Your task to perform on an android device: turn off location history Image 0: 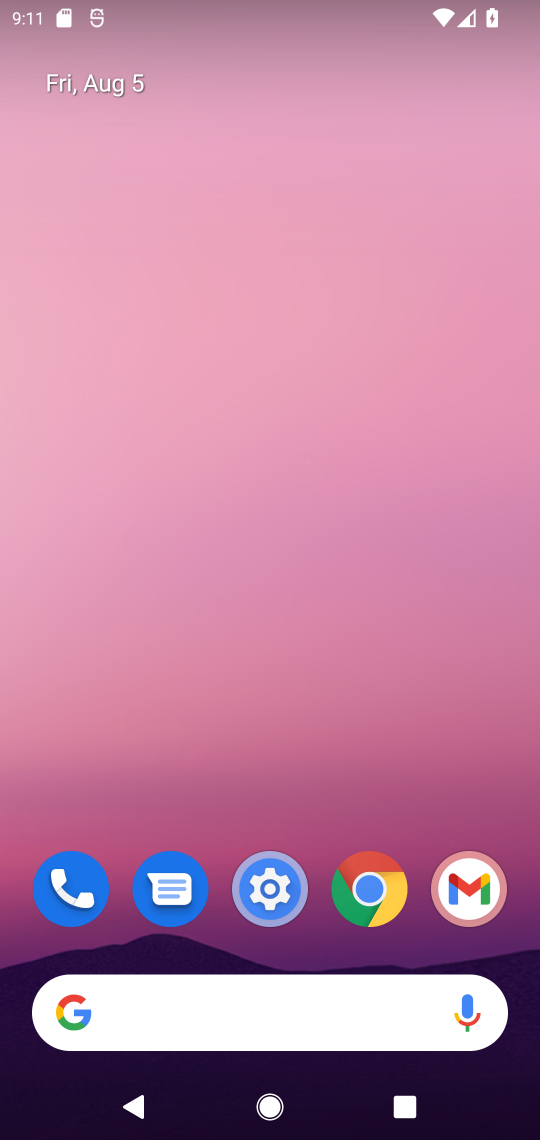
Step 0: drag from (360, 915) to (372, 144)
Your task to perform on an android device: turn off location history Image 1: 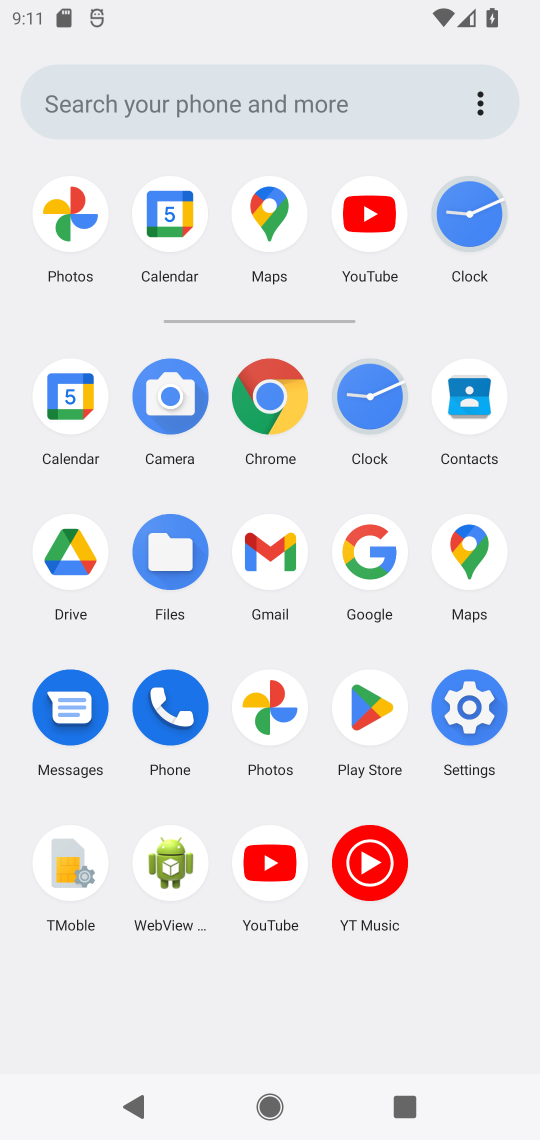
Step 1: click (476, 714)
Your task to perform on an android device: turn off location history Image 2: 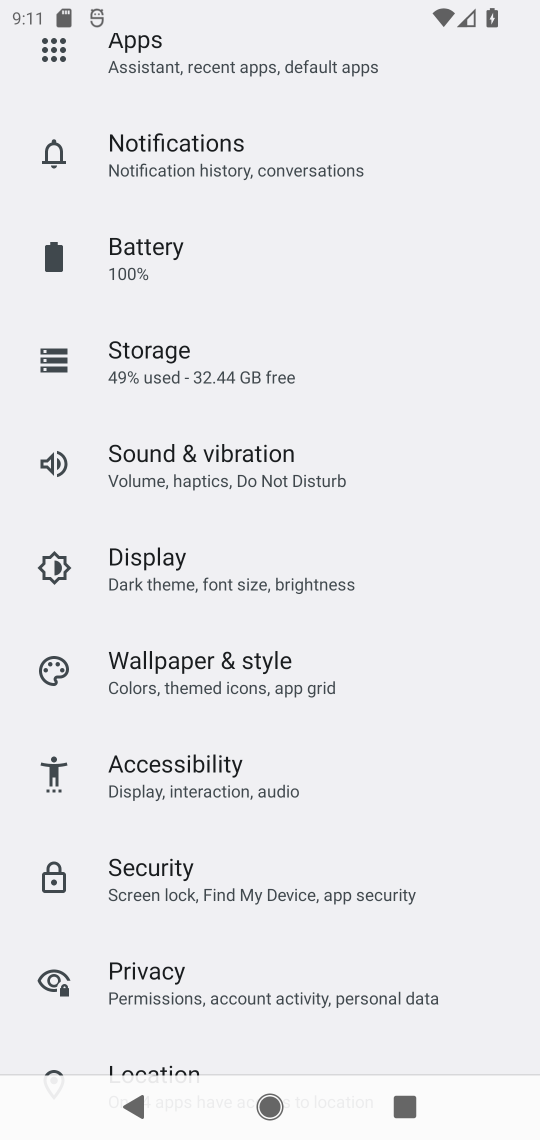
Step 2: drag from (215, 205) to (228, 890)
Your task to perform on an android device: turn off location history Image 3: 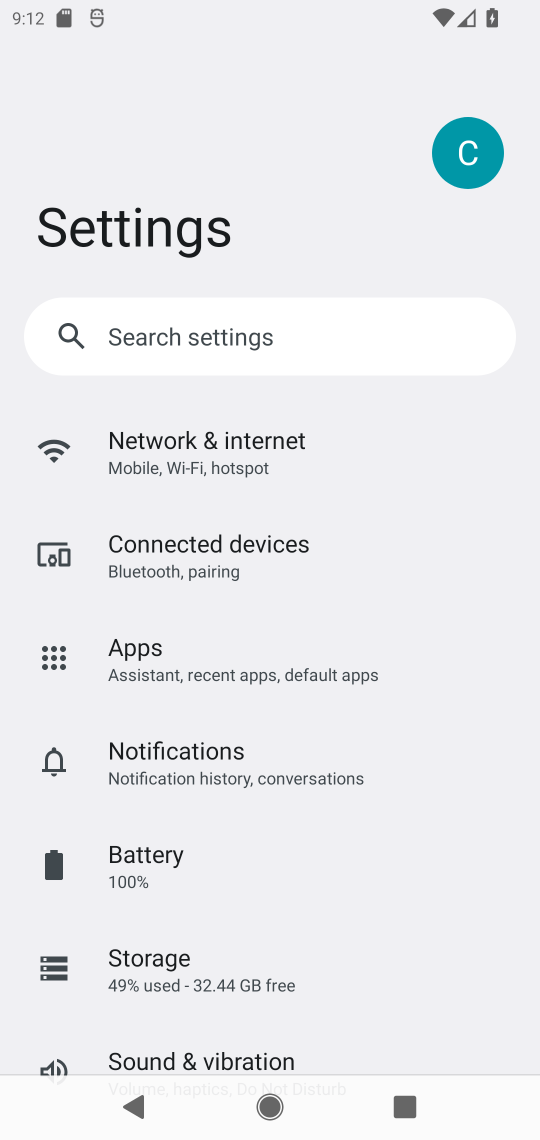
Step 3: drag from (239, 979) to (266, 620)
Your task to perform on an android device: turn off location history Image 4: 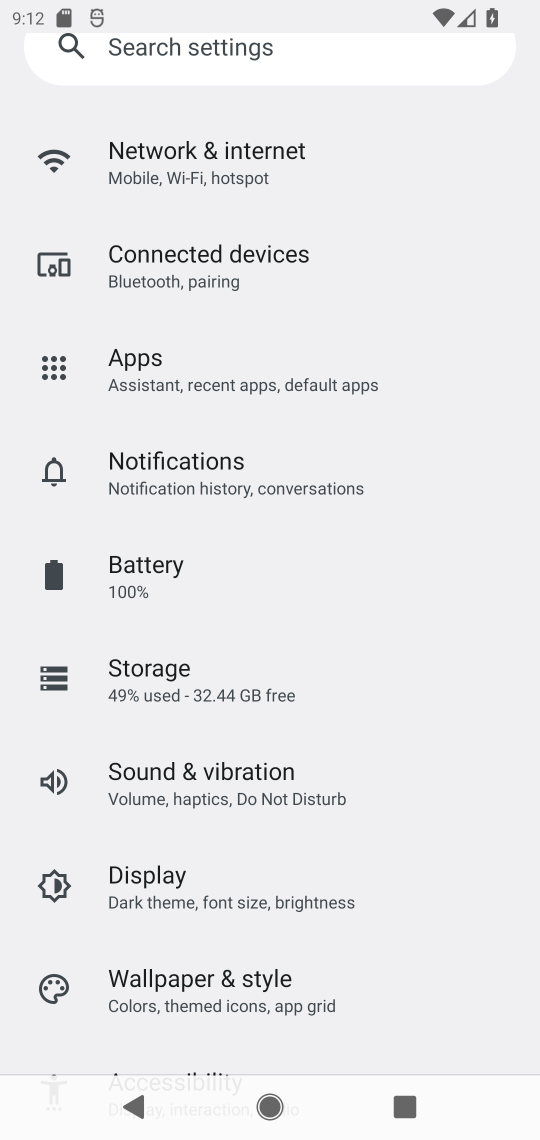
Step 4: drag from (191, 921) to (287, 456)
Your task to perform on an android device: turn off location history Image 5: 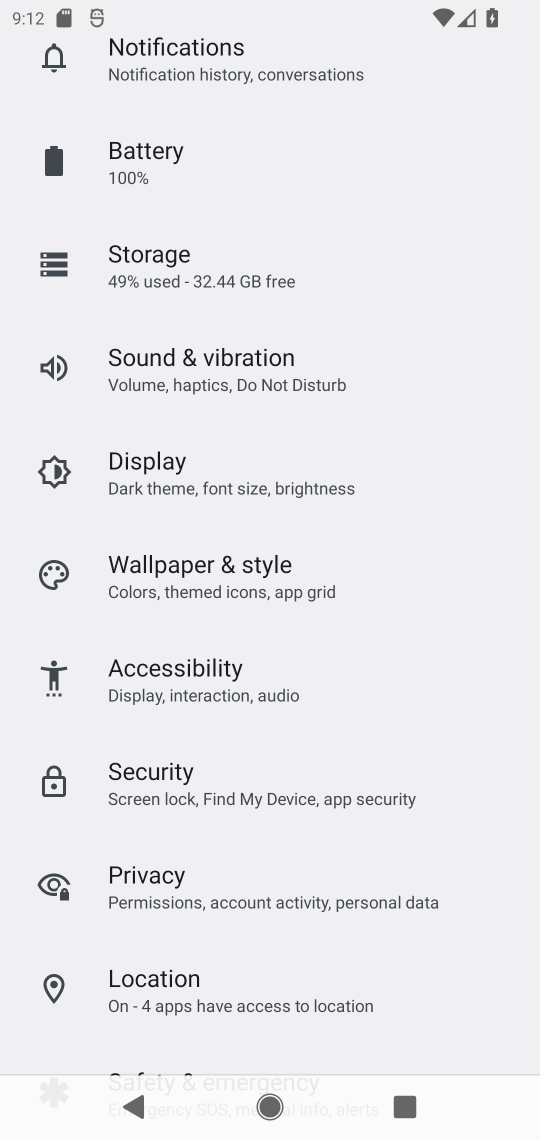
Step 5: click (213, 973)
Your task to perform on an android device: turn off location history Image 6: 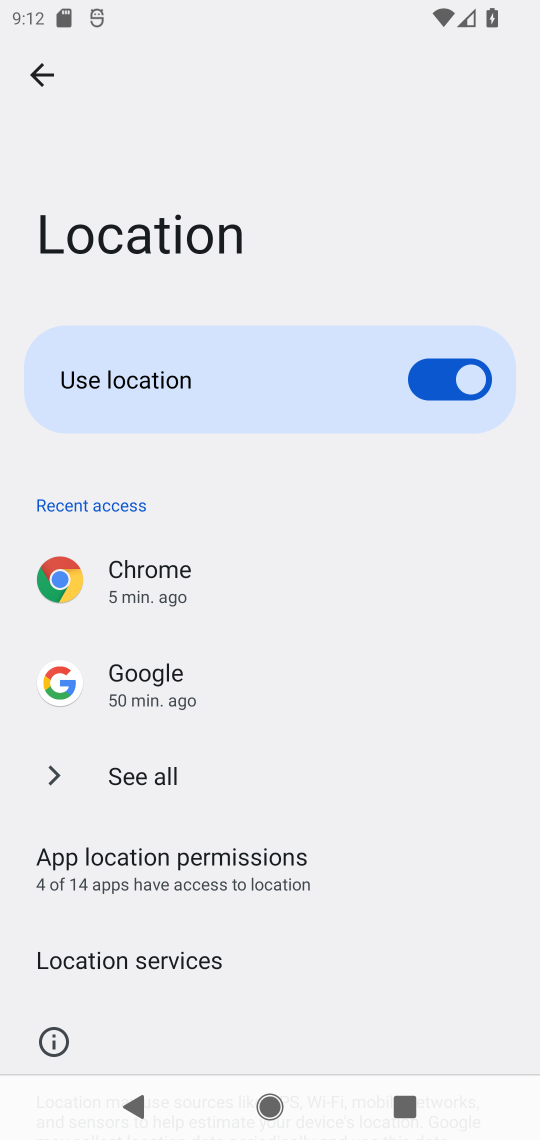
Step 6: click (113, 956)
Your task to perform on an android device: turn off location history Image 7: 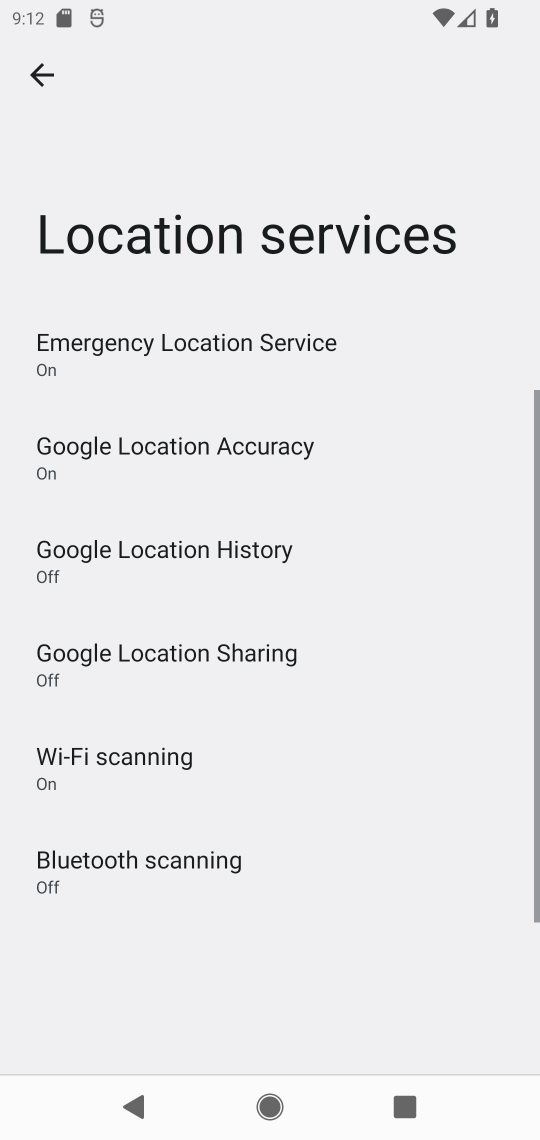
Step 7: click (257, 547)
Your task to perform on an android device: turn off location history Image 8: 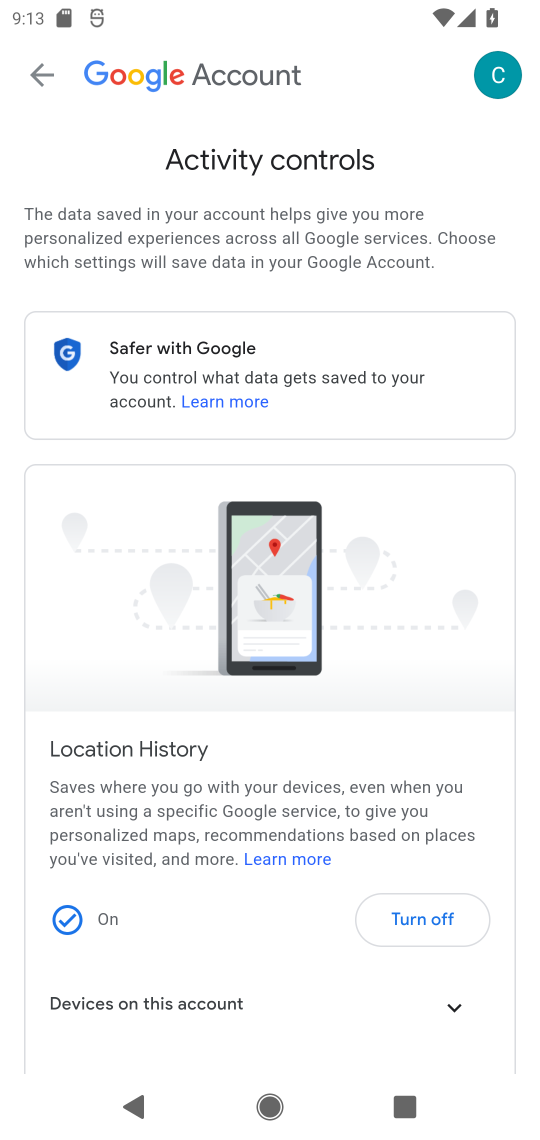
Step 8: task complete